Your task to perform on an android device: Search for pizza restaurants on Maps Image 0: 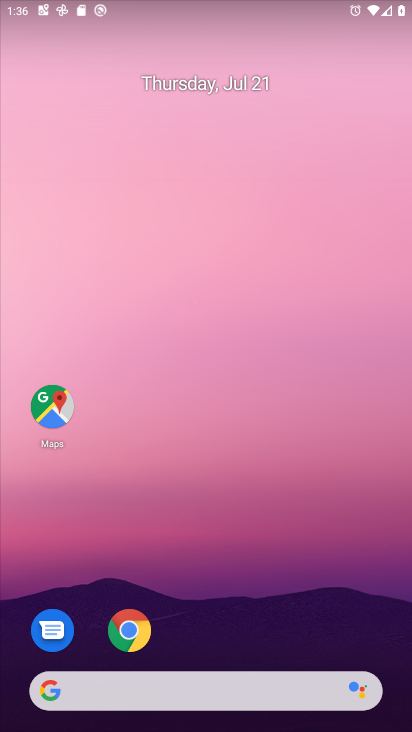
Step 0: drag from (167, 602) to (203, 309)
Your task to perform on an android device: Search for pizza restaurants on Maps Image 1: 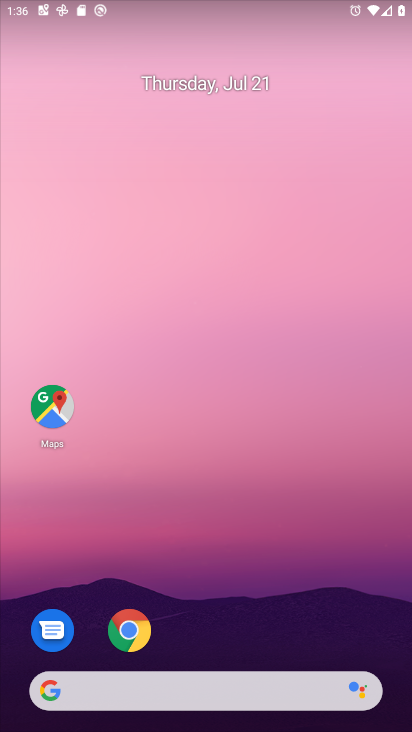
Step 1: click (50, 399)
Your task to perform on an android device: Search for pizza restaurants on Maps Image 2: 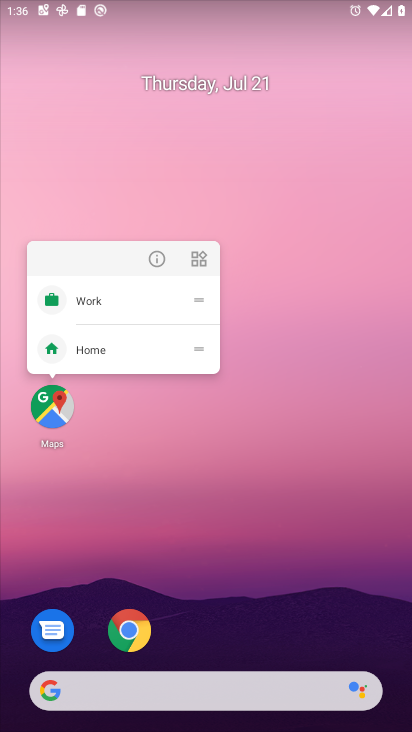
Step 2: click (152, 260)
Your task to perform on an android device: Search for pizza restaurants on Maps Image 3: 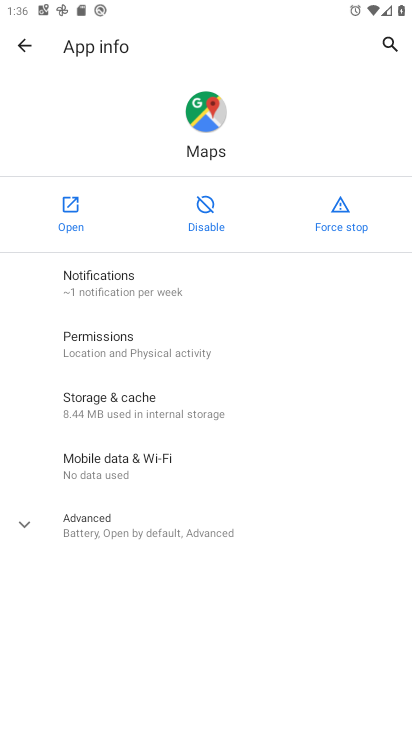
Step 3: click (77, 200)
Your task to perform on an android device: Search for pizza restaurants on Maps Image 4: 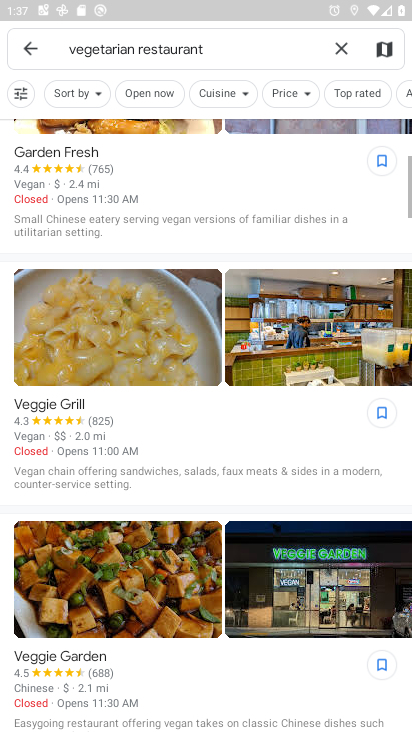
Step 4: click (337, 48)
Your task to perform on an android device: Search for pizza restaurants on Maps Image 5: 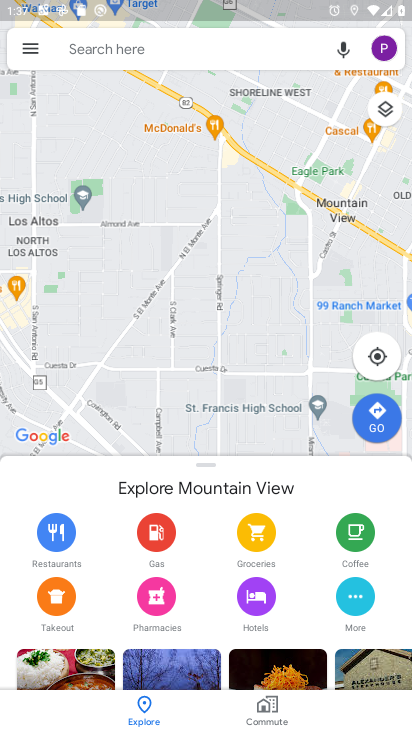
Step 5: click (148, 59)
Your task to perform on an android device: Search for pizza restaurants on Maps Image 6: 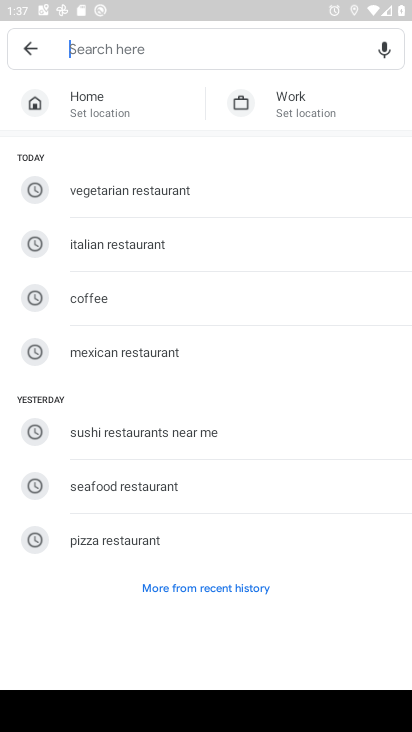
Step 6: click (100, 544)
Your task to perform on an android device: Search for pizza restaurants on Maps Image 7: 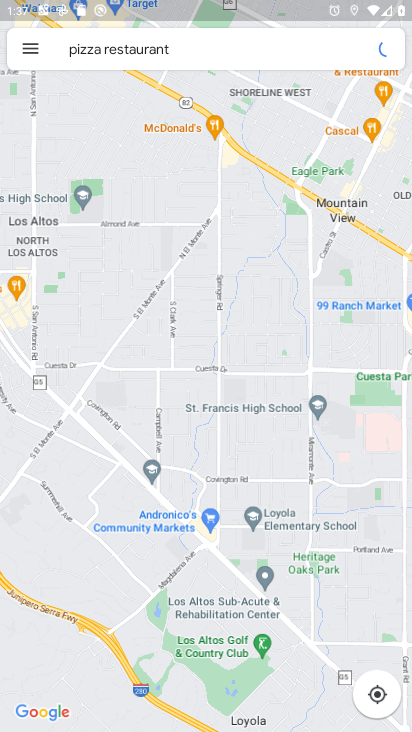
Step 7: task complete